Your task to perform on an android device: open the mobile data screen to see how much data has been used Image 0: 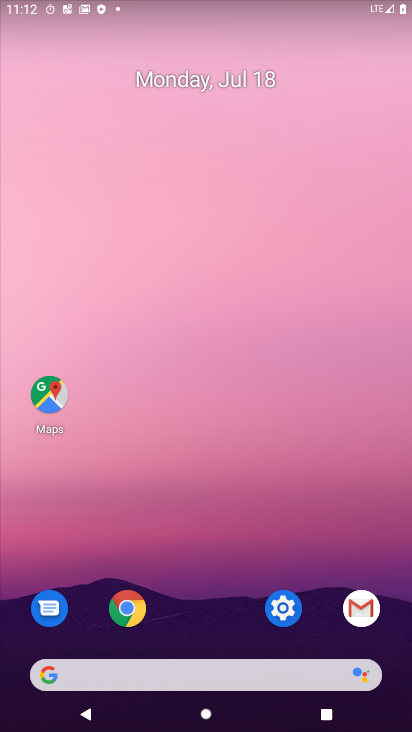
Step 0: click (283, 602)
Your task to perform on an android device: open the mobile data screen to see how much data has been used Image 1: 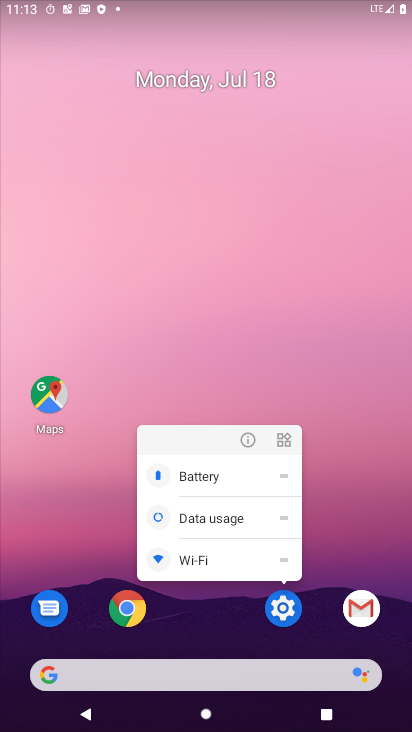
Step 1: click (289, 604)
Your task to perform on an android device: open the mobile data screen to see how much data has been used Image 2: 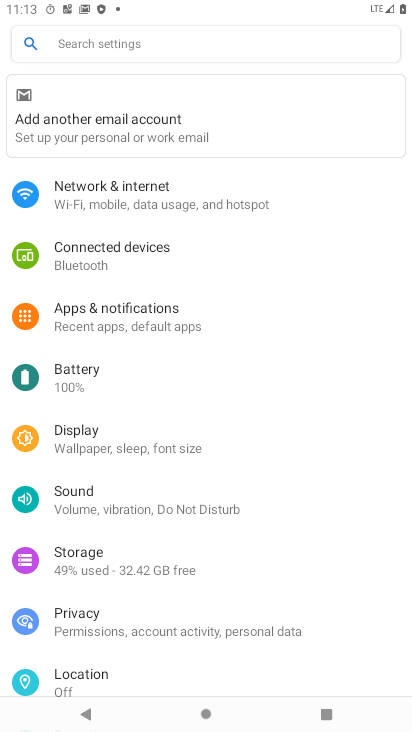
Step 2: click (93, 53)
Your task to perform on an android device: open the mobile data screen to see how much data has been used Image 3: 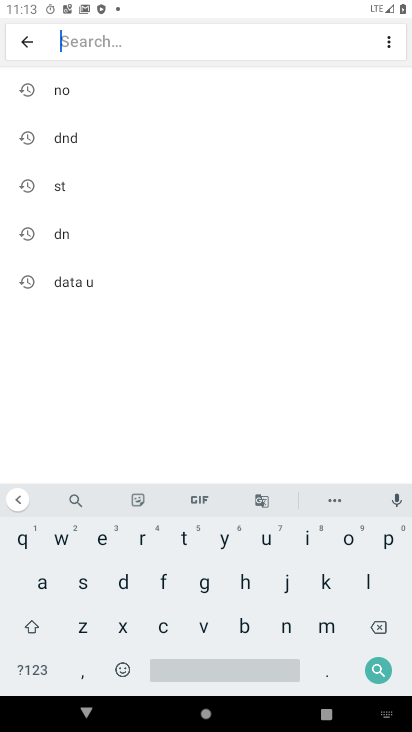
Step 3: click (74, 282)
Your task to perform on an android device: open the mobile data screen to see how much data has been used Image 4: 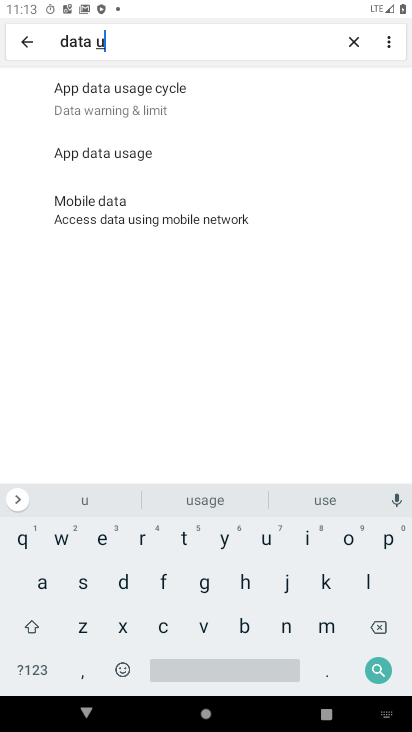
Step 4: click (99, 161)
Your task to perform on an android device: open the mobile data screen to see how much data has been used Image 5: 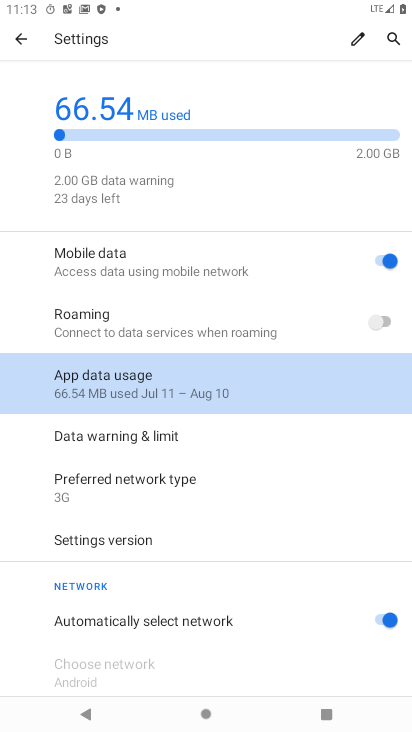
Step 5: click (114, 392)
Your task to perform on an android device: open the mobile data screen to see how much data has been used Image 6: 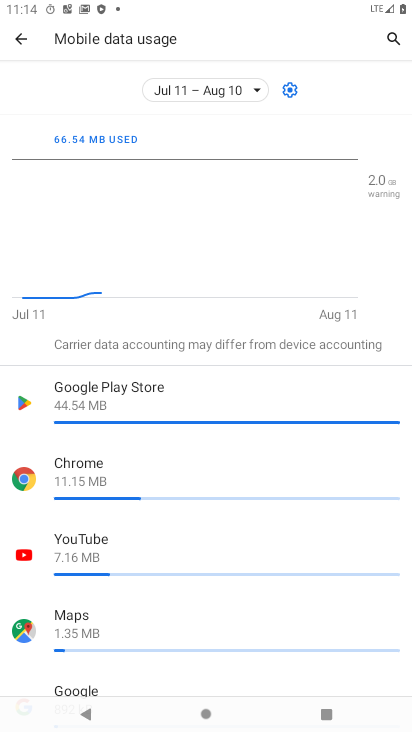
Step 6: task complete